Your task to perform on an android device: turn on airplane mode Image 0: 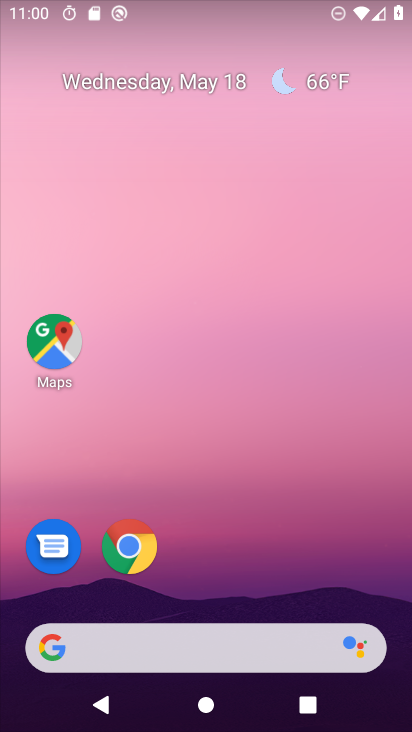
Step 0: drag from (217, 359) to (253, 668)
Your task to perform on an android device: turn on airplane mode Image 1: 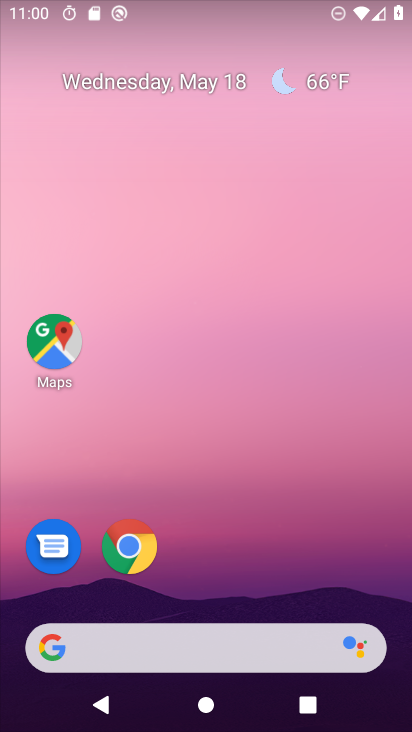
Step 1: drag from (206, 12) to (154, 658)
Your task to perform on an android device: turn on airplane mode Image 2: 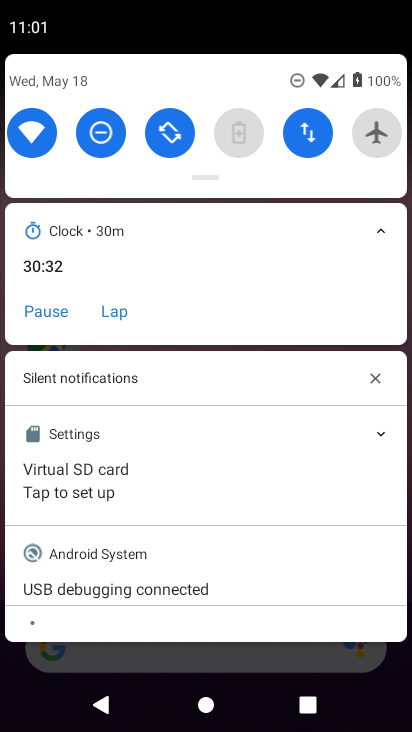
Step 2: click (376, 136)
Your task to perform on an android device: turn on airplane mode Image 3: 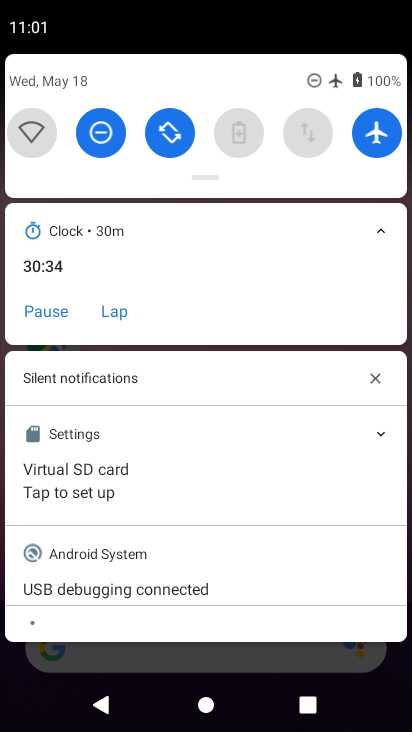
Step 3: task complete